Your task to perform on an android device: Go to wifi settings Image 0: 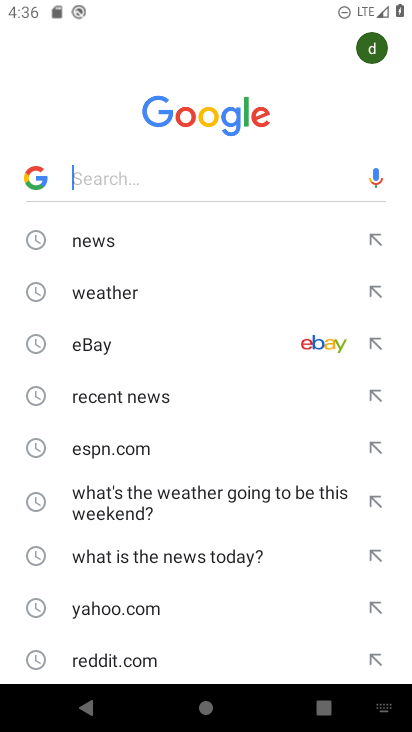
Step 0: press back button
Your task to perform on an android device: Go to wifi settings Image 1: 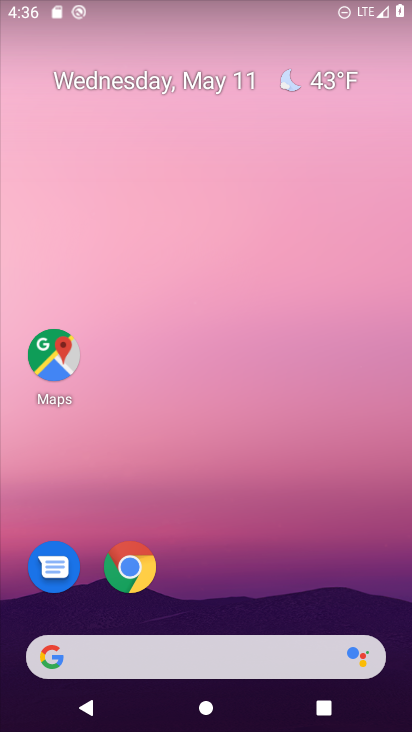
Step 1: drag from (206, 261) to (203, 103)
Your task to perform on an android device: Go to wifi settings Image 2: 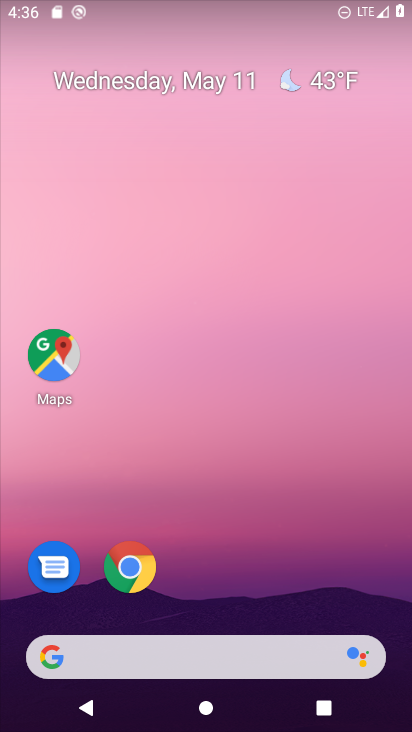
Step 2: drag from (294, 609) to (269, 205)
Your task to perform on an android device: Go to wifi settings Image 3: 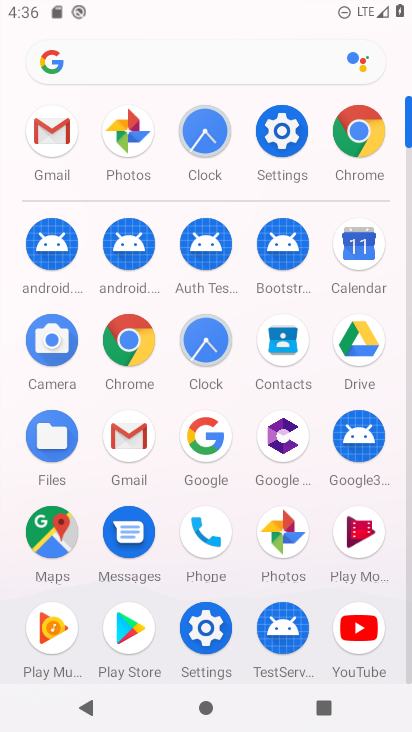
Step 3: click (288, 153)
Your task to perform on an android device: Go to wifi settings Image 4: 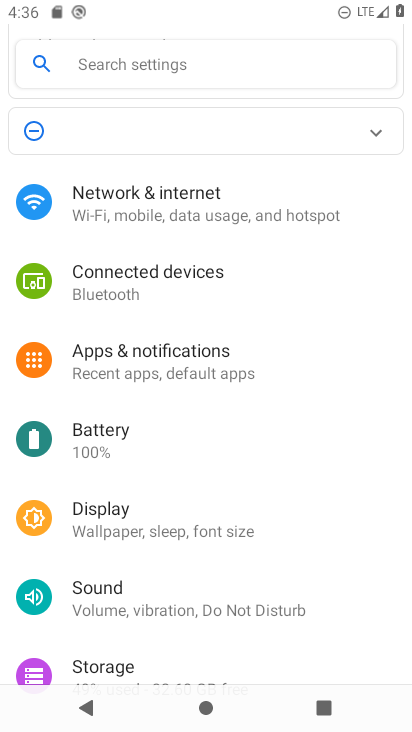
Step 4: click (272, 204)
Your task to perform on an android device: Go to wifi settings Image 5: 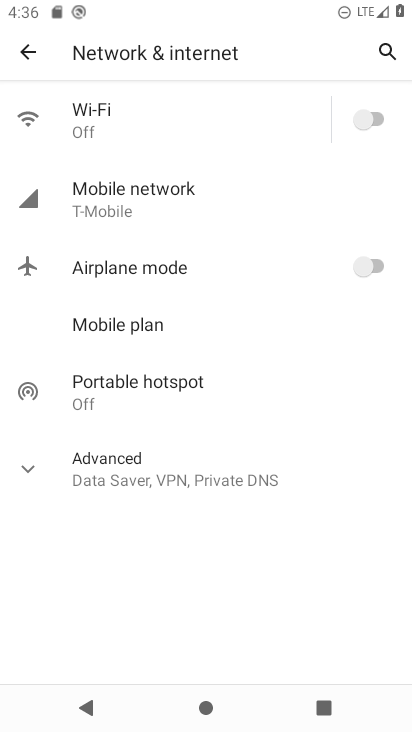
Step 5: click (188, 125)
Your task to perform on an android device: Go to wifi settings Image 6: 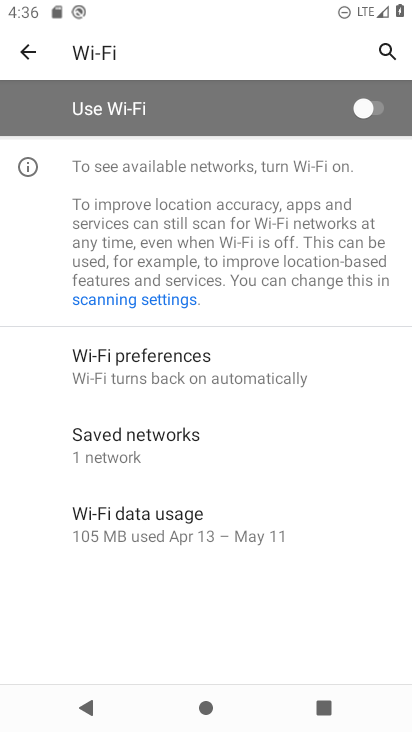
Step 6: click (363, 111)
Your task to perform on an android device: Go to wifi settings Image 7: 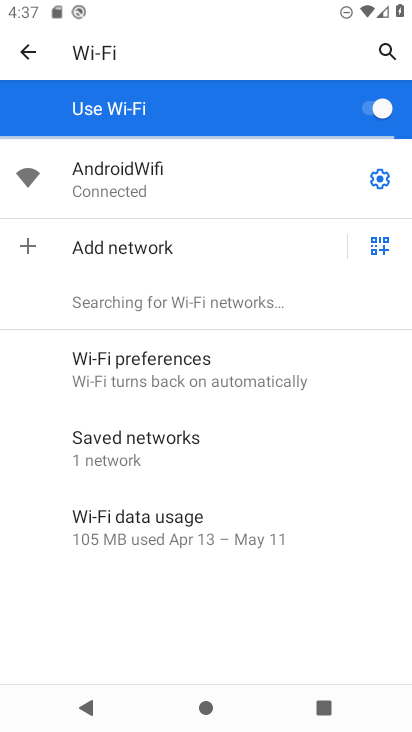
Step 7: click (384, 175)
Your task to perform on an android device: Go to wifi settings Image 8: 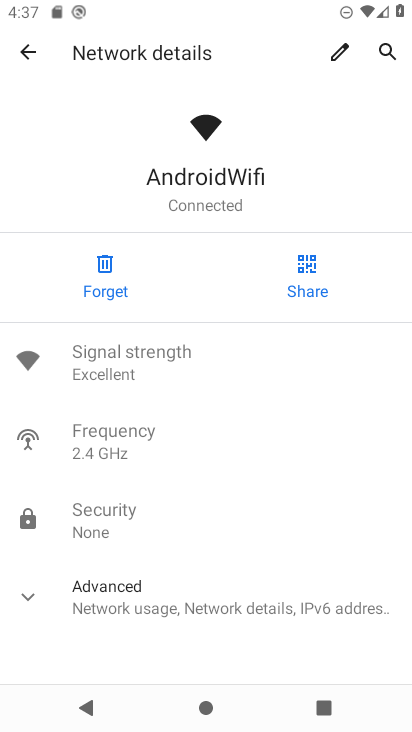
Step 8: task complete